Your task to perform on an android device: see sites visited before in the chrome app Image 0: 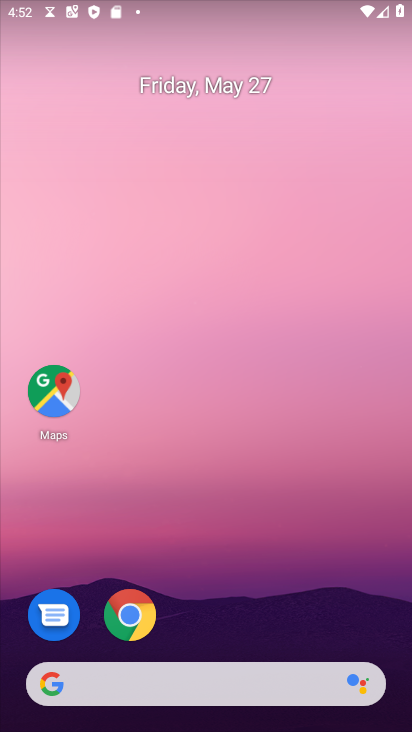
Step 0: click (131, 615)
Your task to perform on an android device: see sites visited before in the chrome app Image 1: 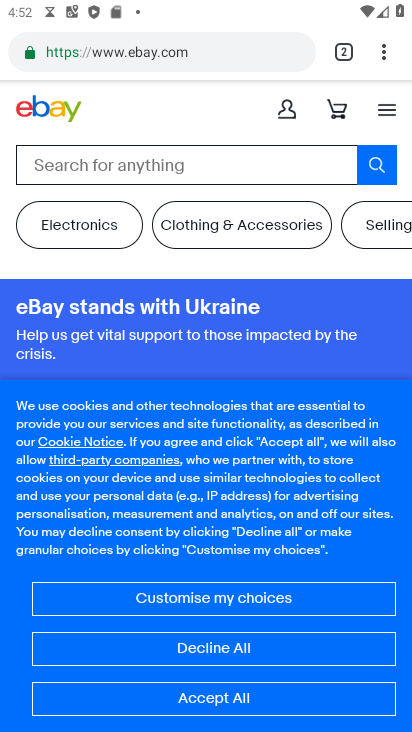
Step 1: click (381, 44)
Your task to perform on an android device: see sites visited before in the chrome app Image 2: 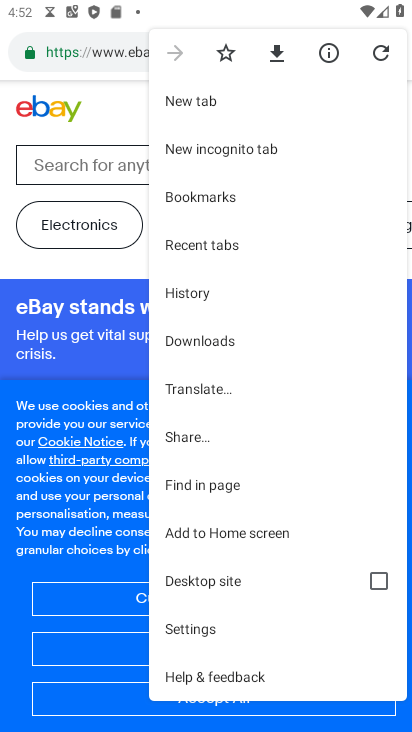
Step 2: click (199, 295)
Your task to perform on an android device: see sites visited before in the chrome app Image 3: 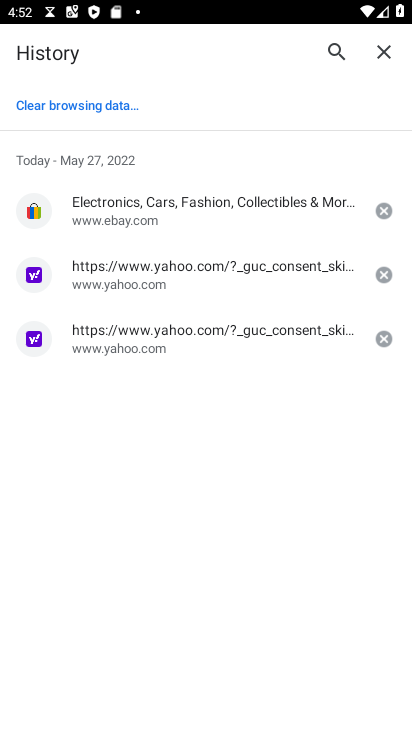
Step 3: task complete